Your task to perform on an android device: Show me productivity apps on the Play Store Image 0: 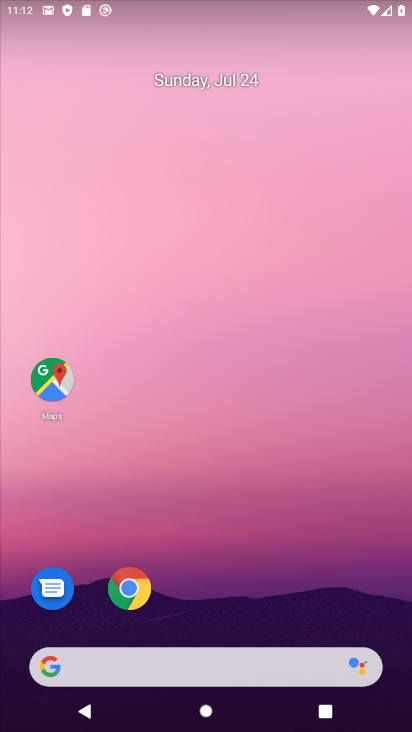
Step 0: drag from (187, 619) to (190, 124)
Your task to perform on an android device: Show me productivity apps on the Play Store Image 1: 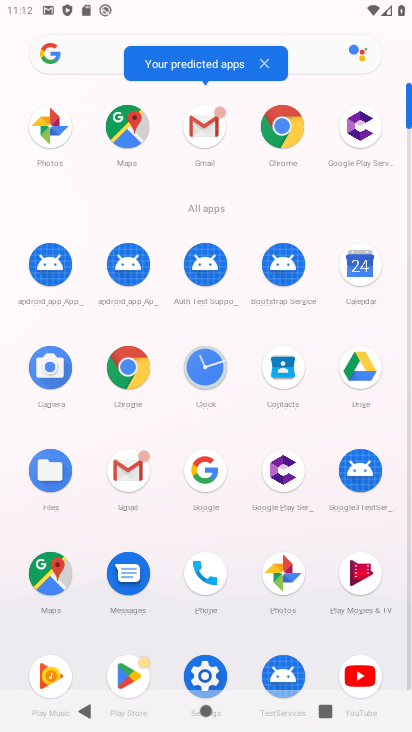
Step 1: drag from (207, 596) to (257, 200)
Your task to perform on an android device: Show me productivity apps on the Play Store Image 2: 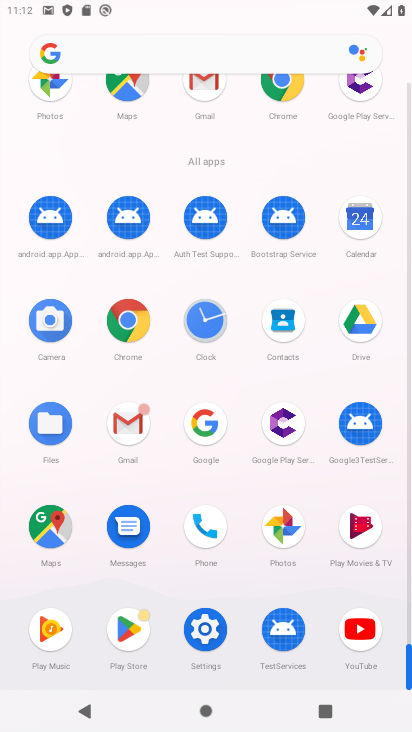
Step 2: click (136, 635)
Your task to perform on an android device: Show me productivity apps on the Play Store Image 3: 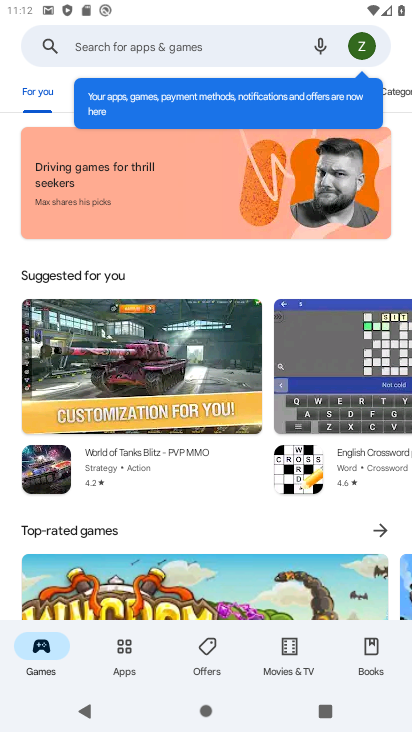
Step 3: click (124, 656)
Your task to perform on an android device: Show me productivity apps on the Play Store Image 4: 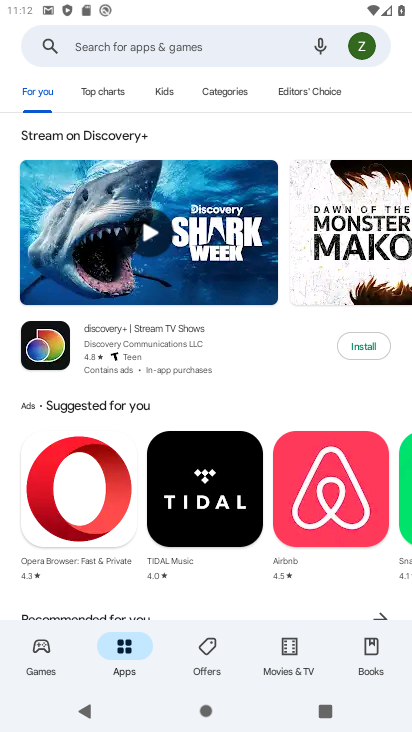
Step 4: click (238, 86)
Your task to perform on an android device: Show me productivity apps on the Play Store Image 5: 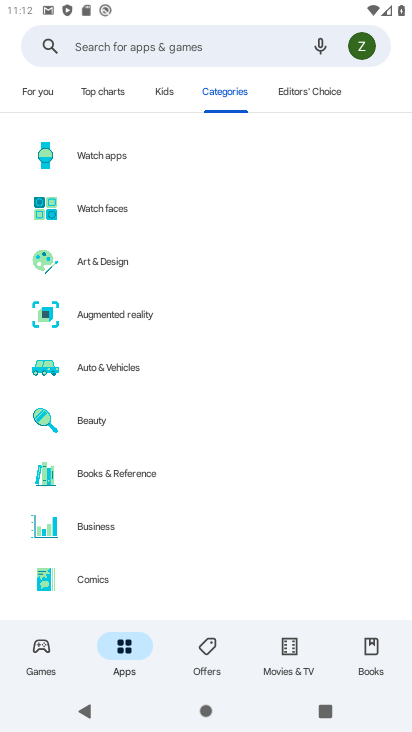
Step 5: drag from (144, 518) to (175, 140)
Your task to perform on an android device: Show me productivity apps on the Play Store Image 6: 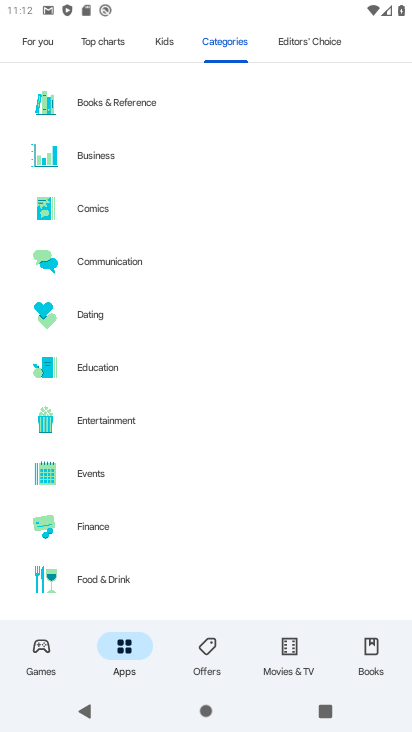
Step 6: drag from (232, 533) to (236, 132)
Your task to perform on an android device: Show me productivity apps on the Play Store Image 7: 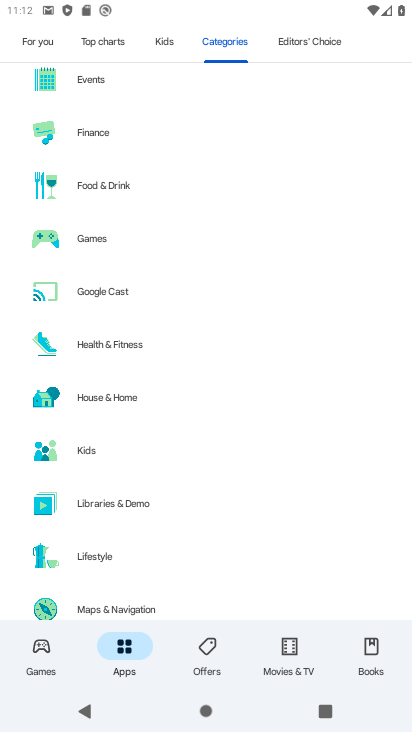
Step 7: drag from (217, 538) to (252, 117)
Your task to perform on an android device: Show me productivity apps on the Play Store Image 8: 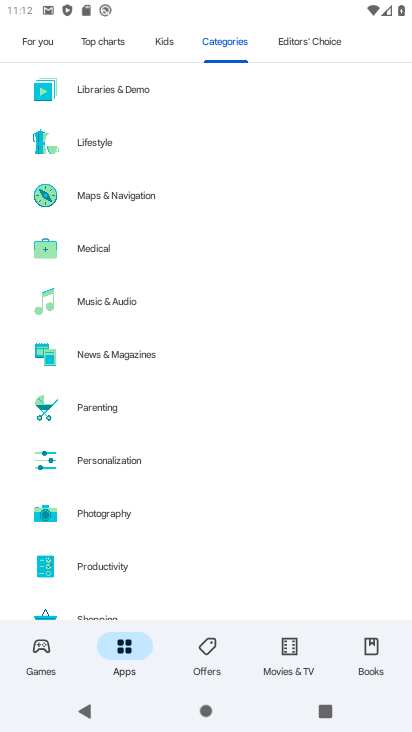
Step 8: click (154, 572)
Your task to perform on an android device: Show me productivity apps on the Play Store Image 9: 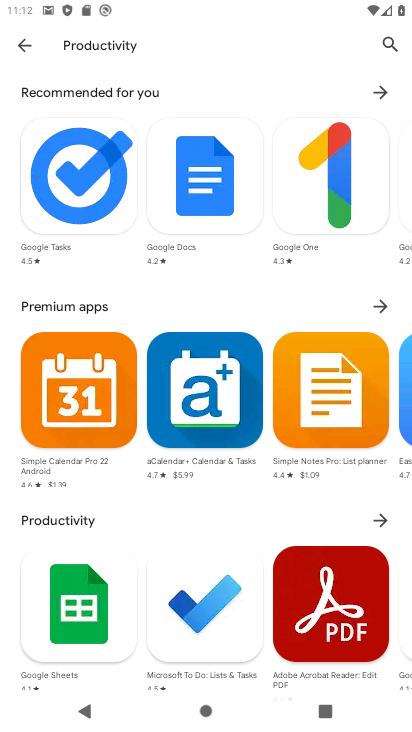
Step 9: task complete